Your task to perform on an android device: set default search engine in the chrome app Image 0: 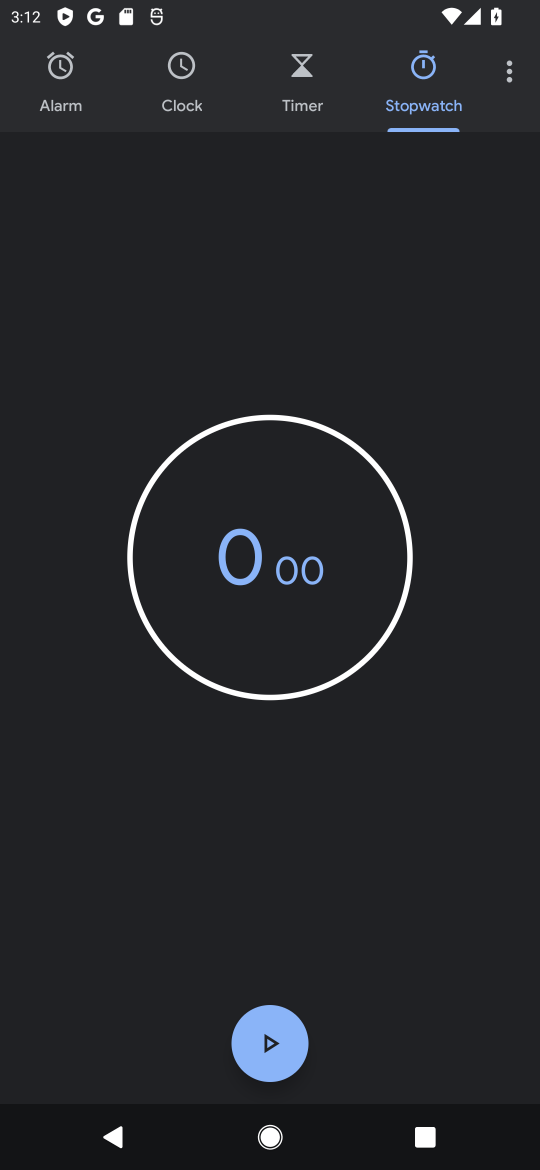
Step 0: press home button
Your task to perform on an android device: set default search engine in the chrome app Image 1: 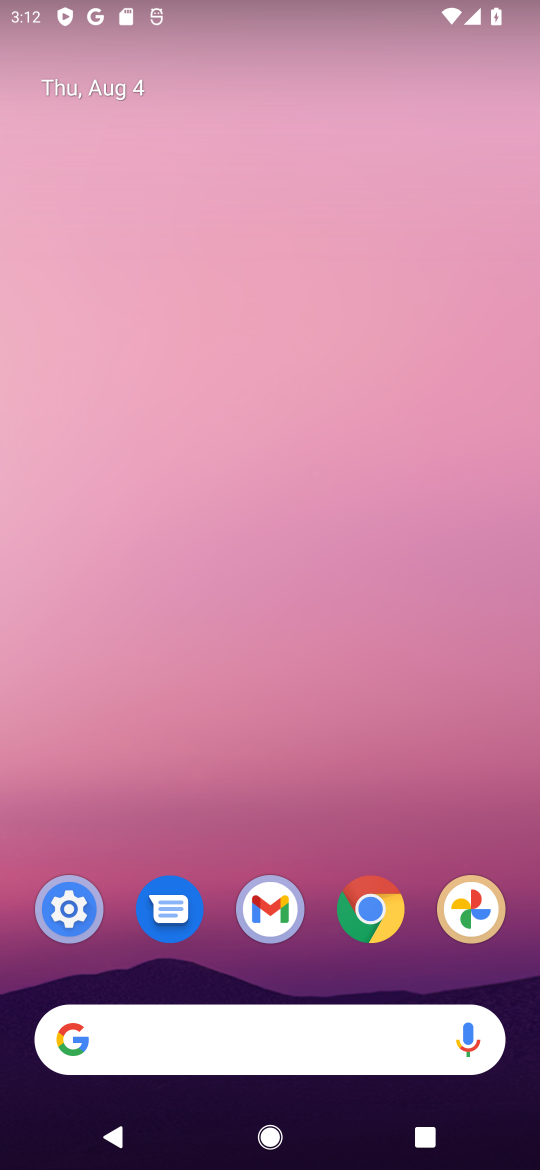
Step 1: click (363, 897)
Your task to perform on an android device: set default search engine in the chrome app Image 2: 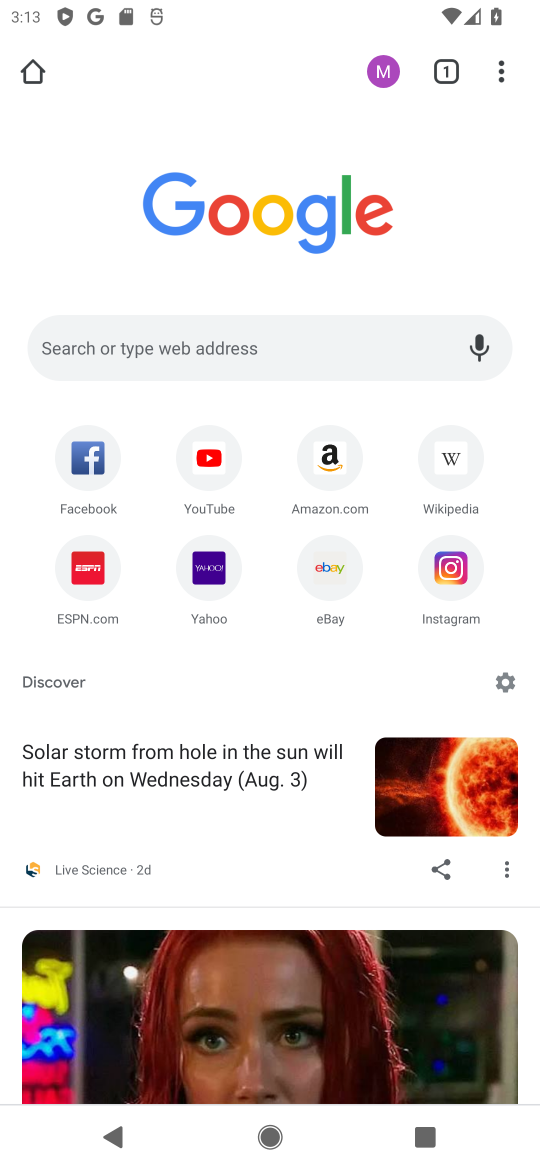
Step 2: drag from (503, 70) to (295, 721)
Your task to perform on an android device: set default search engine in the chrome app Image 3: 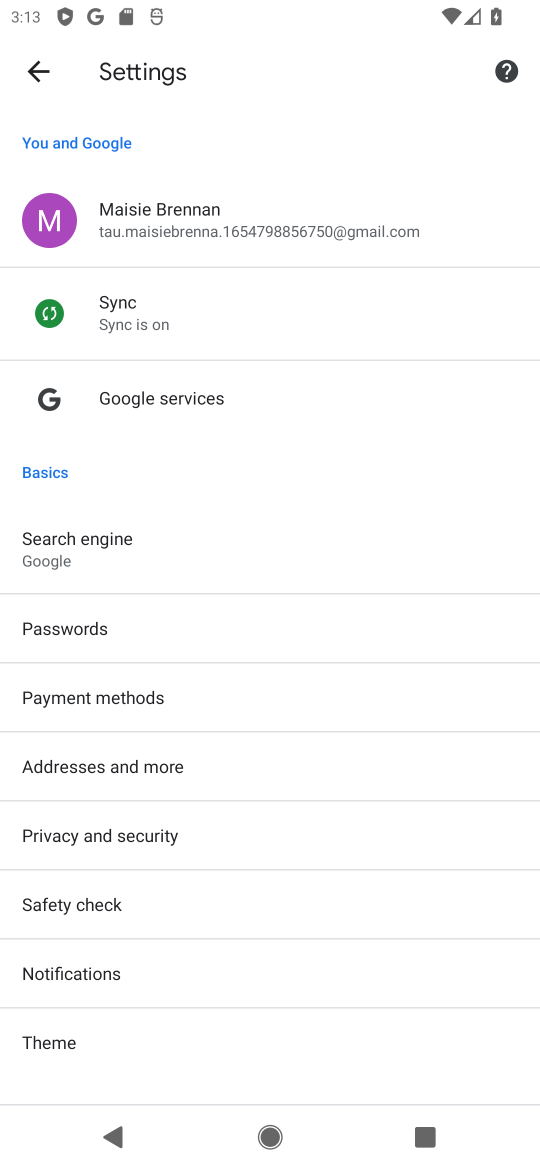
Step 3: click (86, 562)
Your task to perform on an android device: set default search engine in the chrome app Image 4: 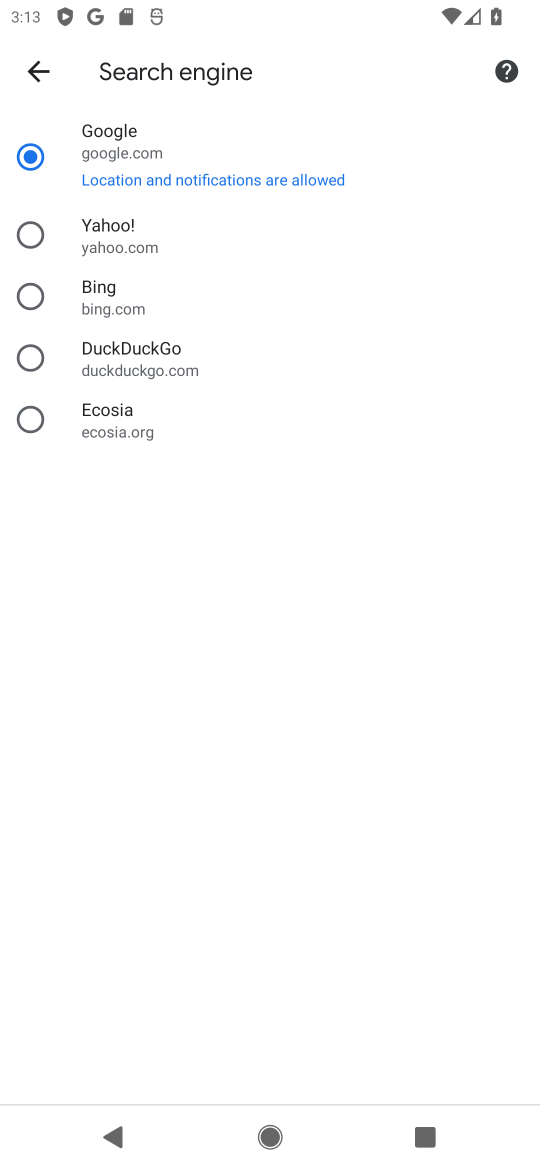
Step 4: click (30, 227)
Your task to perform on an android device: set default search engine in the chrome app Image 5: 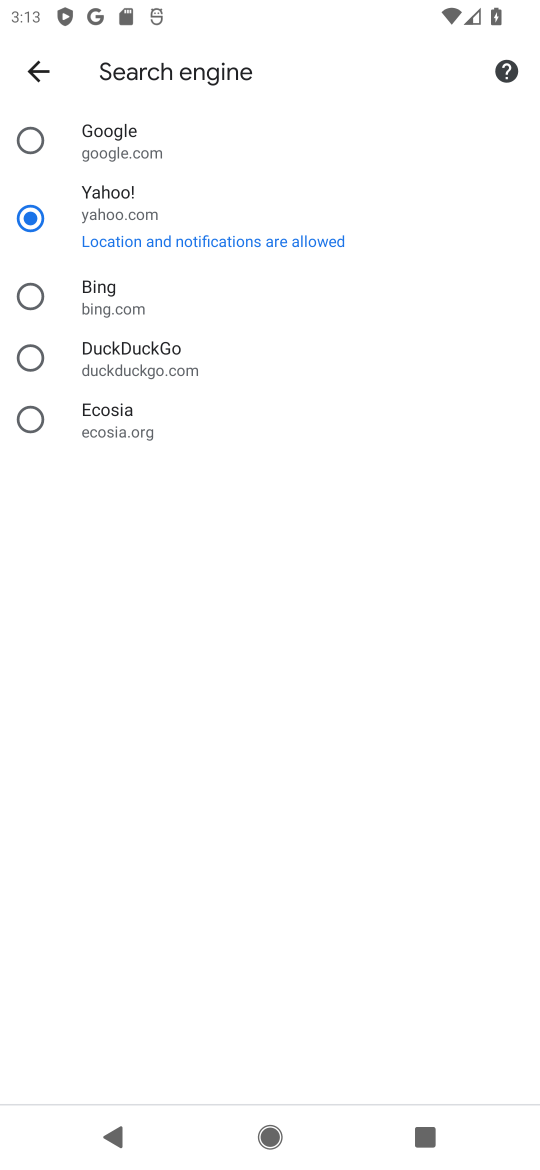
Step 5: task complete